Your task to perform on an android device: check the backup settings in the google photos Image 0: 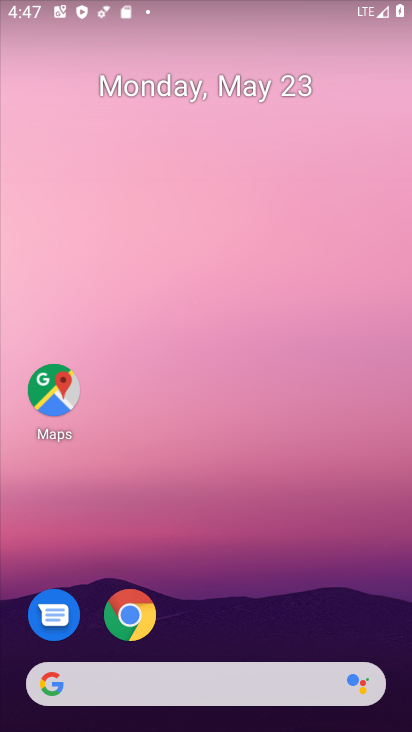
Step 0: drag from (231, 622) to (255, 183)
Your task to perform on an android device: check the backup settings in the google photos Image 1: 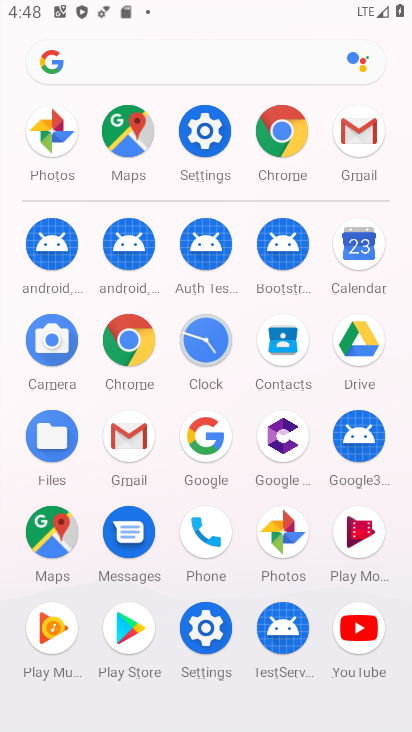
Step 1: click (285, 528)
Your task to perform on an android device: check the backup settings in the google photos Image 2: 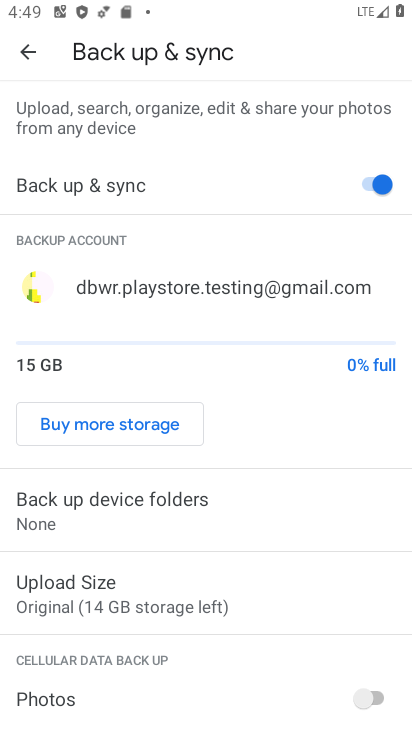
Step 2: click (123, 510)
Your task to perform on an android device: check the backup settings in the google photos Image 3: 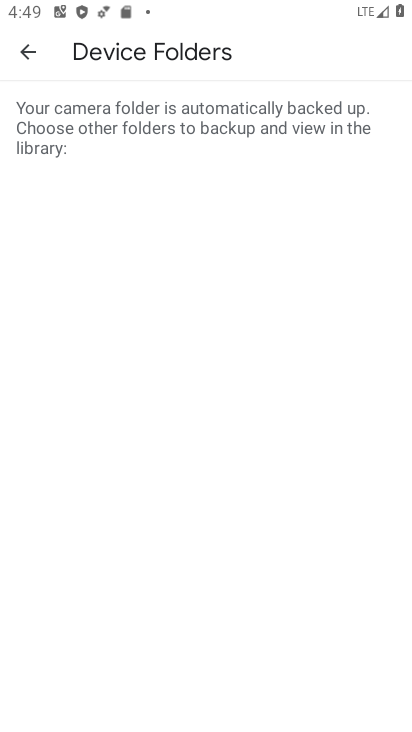
Step 3: click (22, 54)
Your task to perform on an android device: check the backup settings in the google photos Image 4: 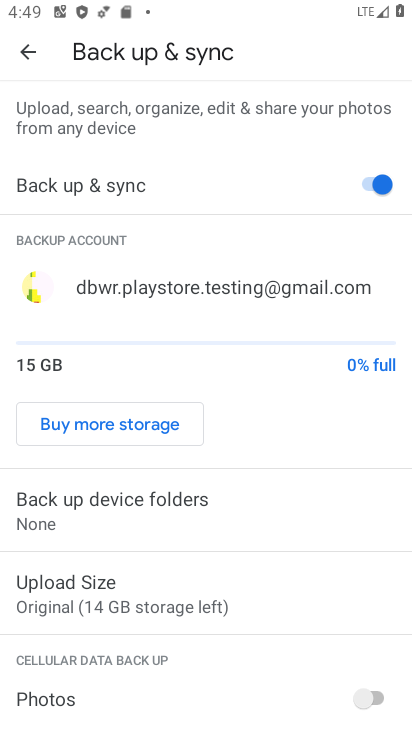
Step 4: task complete